Your task to perform on an android device: Is it going to rain this weekend? Image 0: 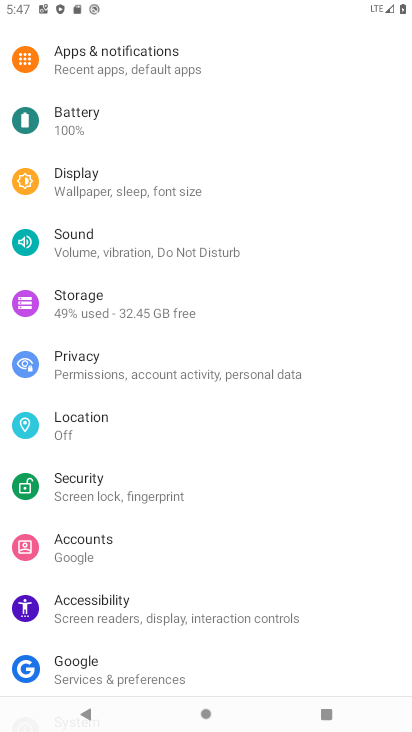
Step 0: press home button
Your task to perform on an android device: Is it going to rain this weekend? Image 1: 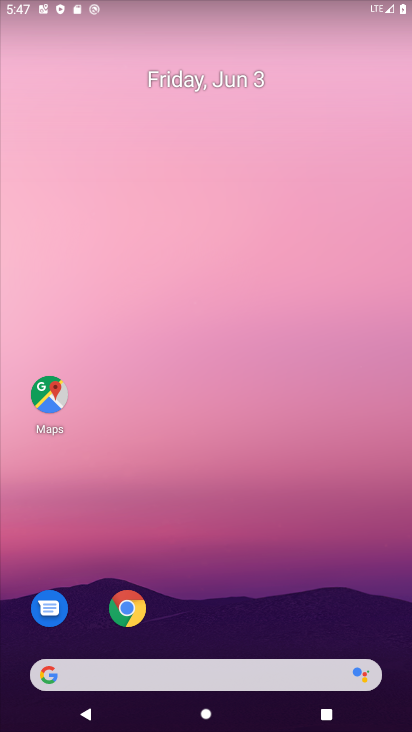
Step 1: click (151, 663)
Your task to perform on an android device: Is it going to rain this weekend? Image 2: 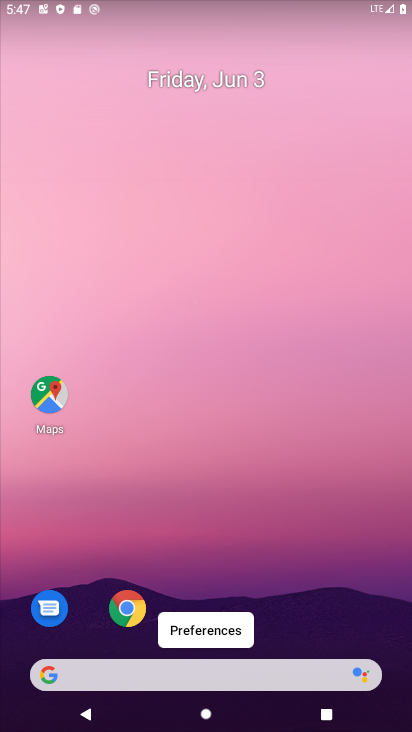
Step 2: click (151, 663)
Your task to perform on an android device: Is it going to rain this weekend? Image 3: 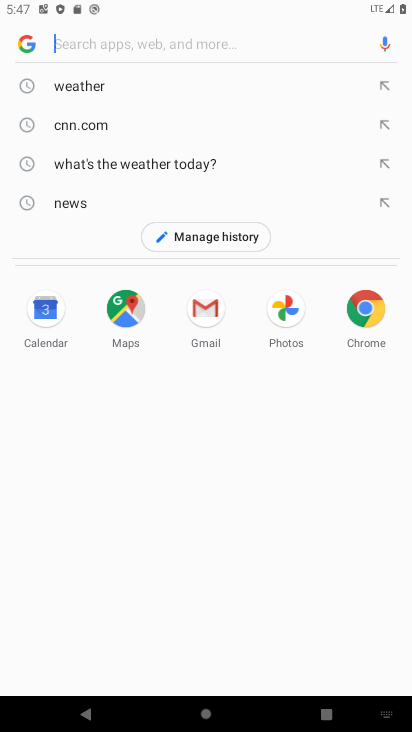
Step 3: click (97, 83)
Your task to perform on an android device: Is it going to rain this weekend? Image 4: 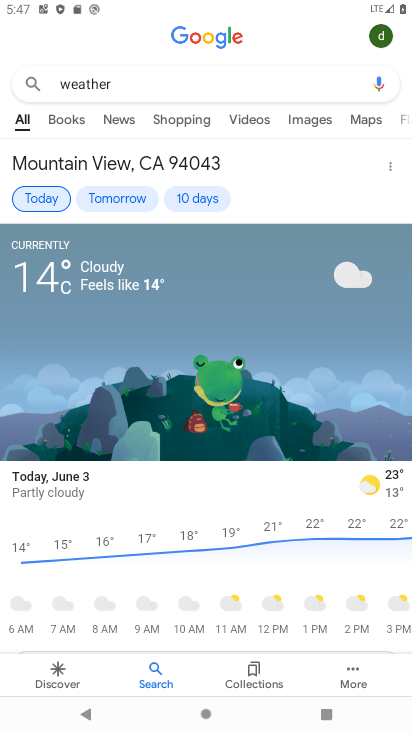
Step 4: click (197, 201)
Your task to perform on an android device: Is it going to rain this weekend? Image 5: 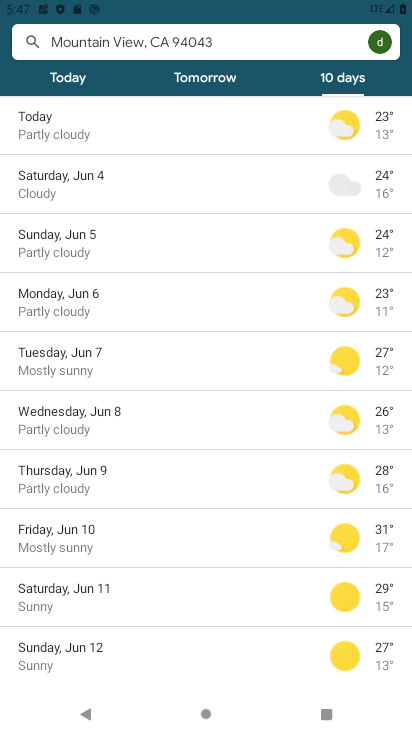
Step 5: task complete